Your task to perform on an android device: Open sound settings Image 0: 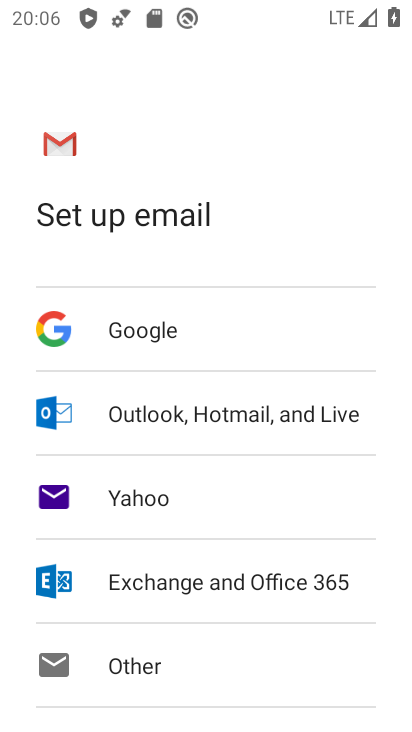
Step 0: press home button
Your task to perform on an android device: Open sound settings Image 1: 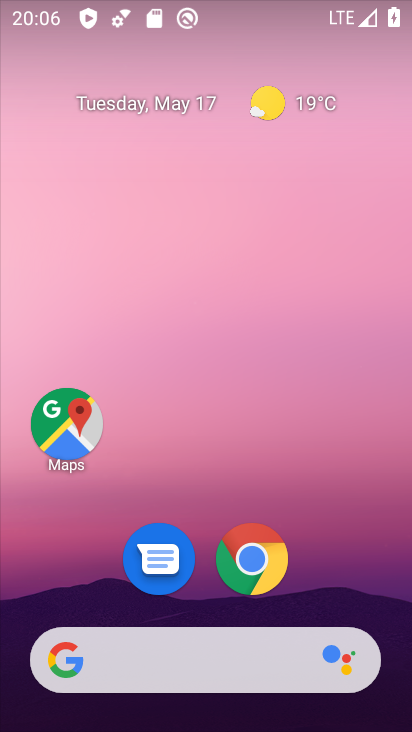
Step 1: drag from (235, 589) to (130, 0)
Your task to perform on an android device: Open sound settings Image 2: 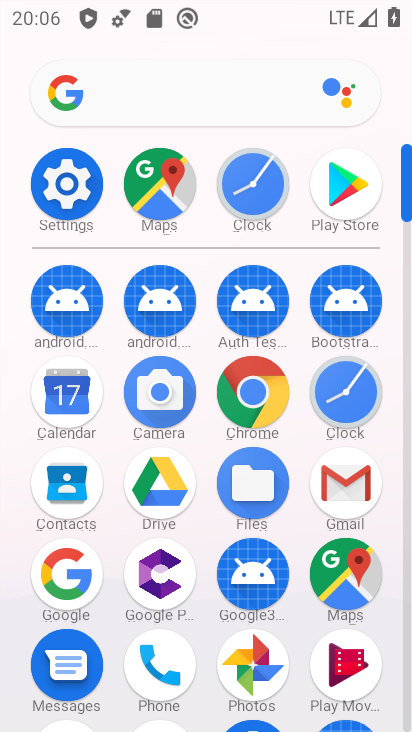
Step 2: click (68, 157)
Your task to perform on an android device: Open sound settings Image 3: 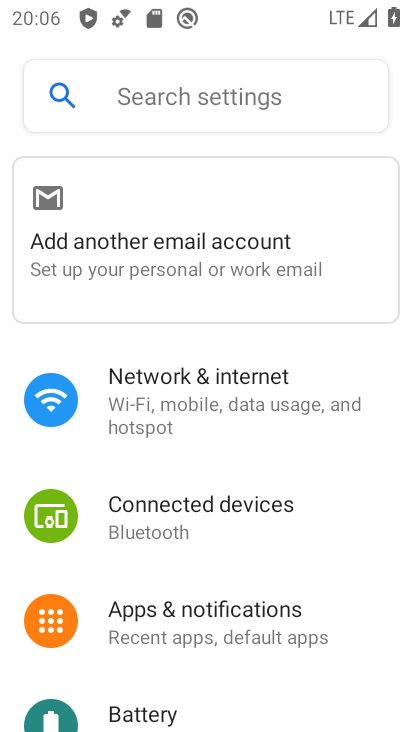
Step 3: drag from (208, 610) to (257, 2)
Your task to perform on an android device: Open sound settings Image 4: 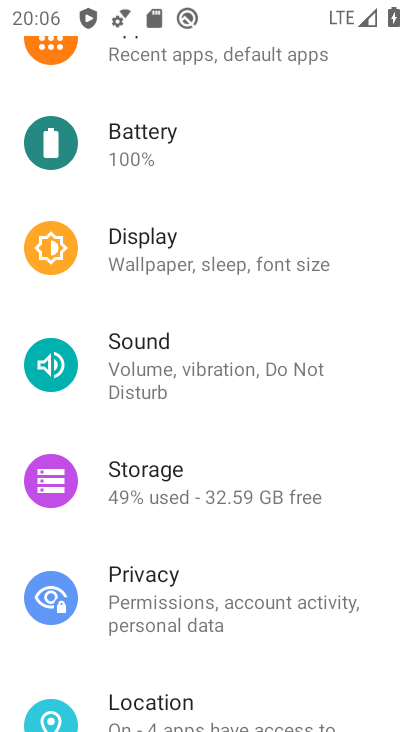
Step 4: drag from (239, 589) to (311, 283)
Your task to perform on an android device: Open sound settings Image 5: 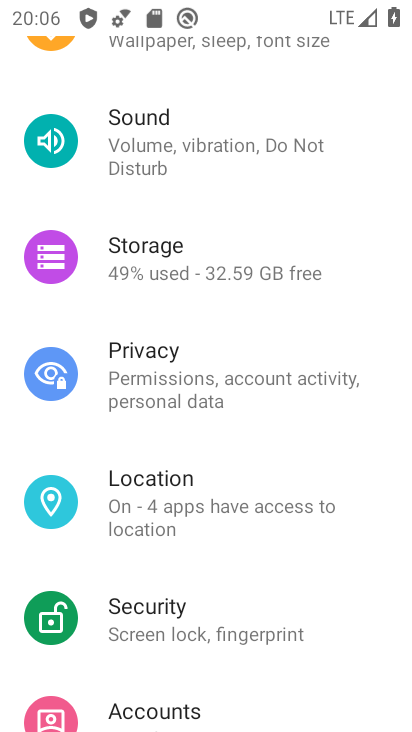
Step 5: click (156, 156)
Your task to perform on an android device: Open sound settings Image 6: 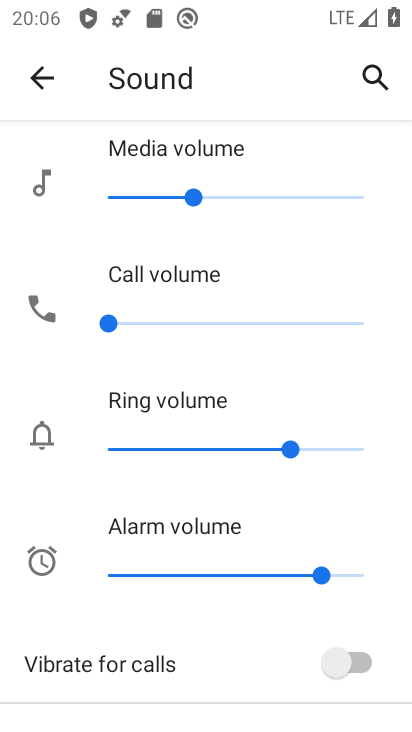
Step 6: task complete